Your task to perform on an android device: Go to accessibility settings Image 0: 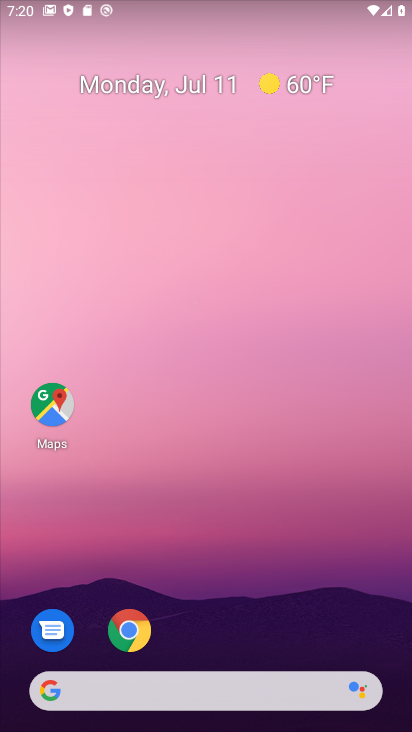
Step 0: drag from (352, 641) to (317, 79)
Your task to perform on an android device: Go to accessibility settings Image 1: 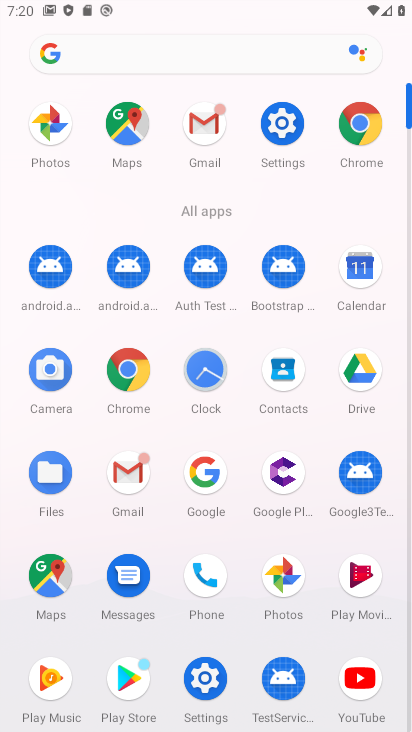
Step 1: click (207, 677)
Your task to perform on an android device: Go to accessibility settings Image 2: 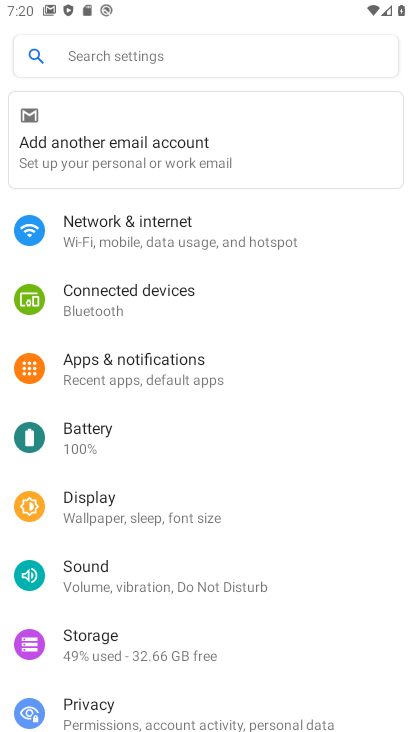
Step 2: drag from (354, 676) to (328, 303)
Your task to perform on an android device: Go to accessibility settings Image 3: 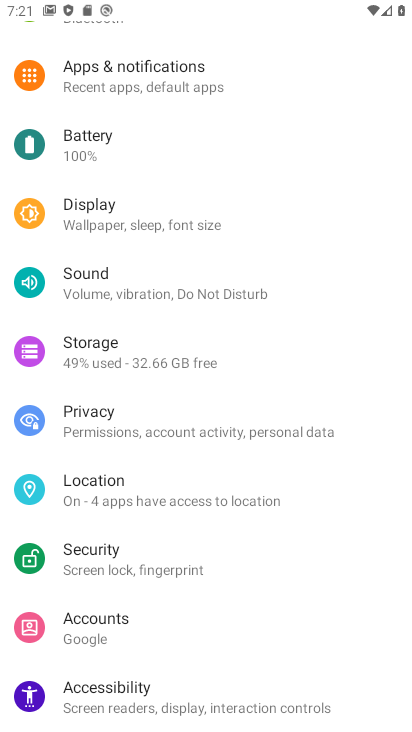
Step 3: click (103, 679)
Your task to perform on an android device: Go to accessibility settings Image 4: 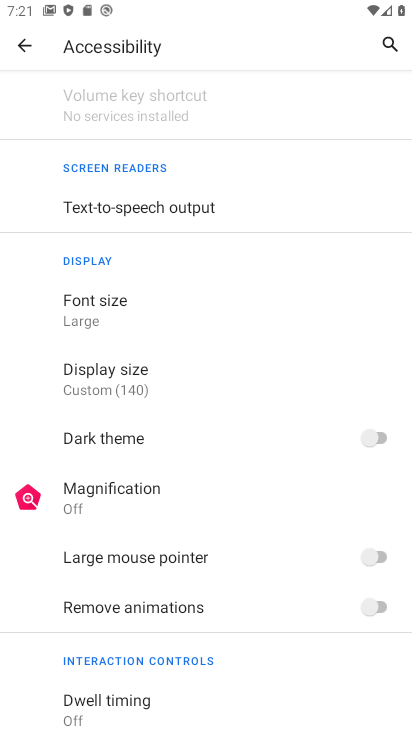
Step 4: task complete